Your task to perform on an android device: change notification settings in the gmail app Image 0: 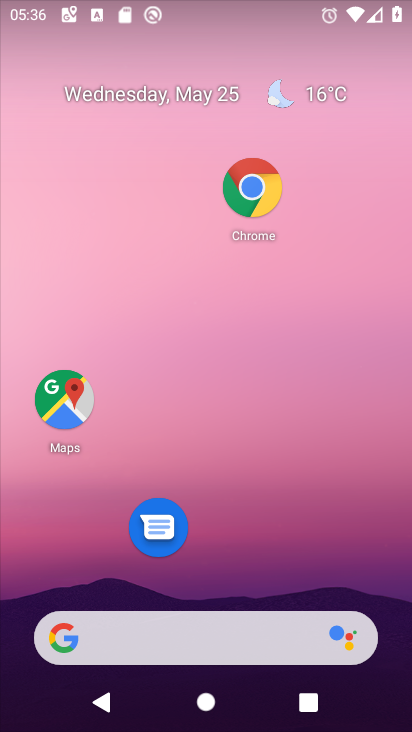
Step 0: drag from (302, 520) to (315, 5)
Your task to perform on an android device: change notification settings in the gmail app Image 1: 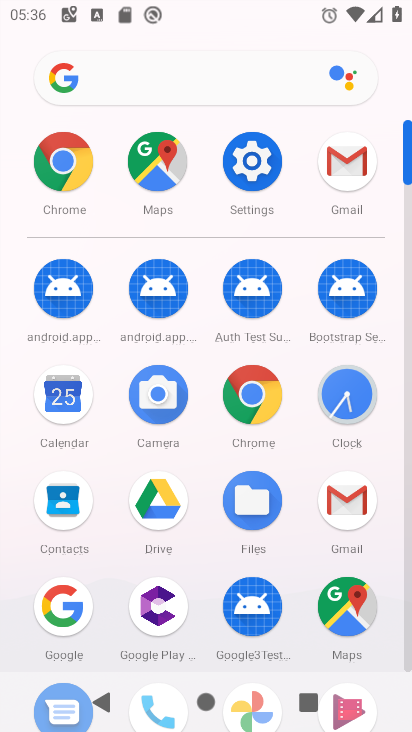
Step 1: click (347, 516)
Your task to perform on an android device: change notification settings in the gmail app Image 2: 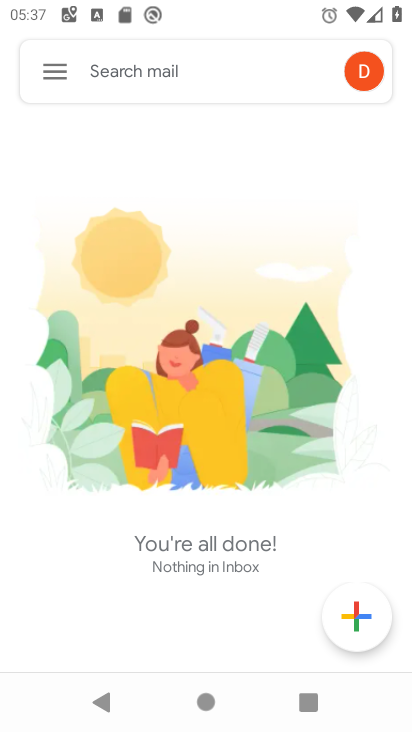
Step 2: click (55, 80)
Your task to perform on an android device: change notification settings in the gmail app Image 3: 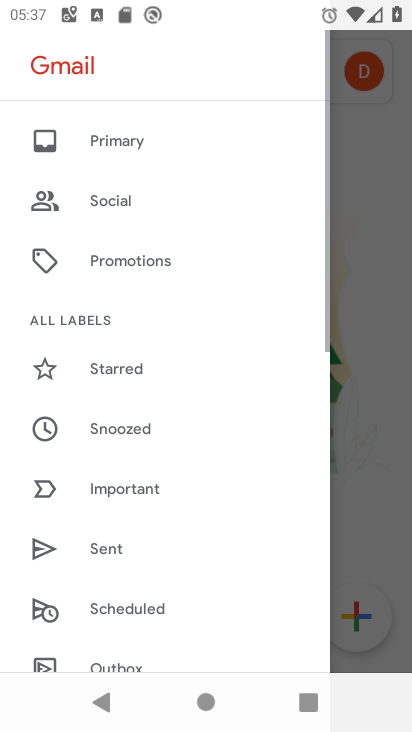
Step 3: drag from (143, 594) to (174, 142)
Your task to perform on an android device: change notification settings in the gmail app Image 4: 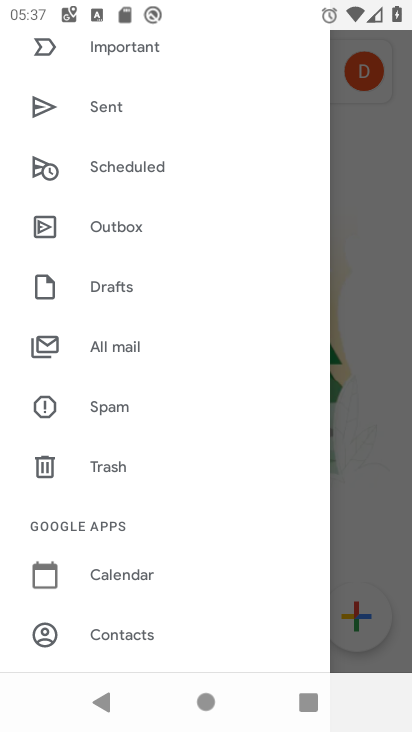
Step 4: drag from (142, 604) to (187, 276)
Your task to perform on an android device: change notification settings in the gmail app Image 5: 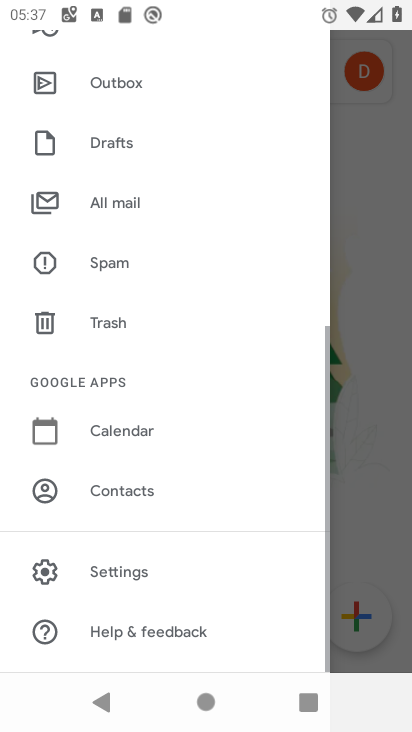
Step 5: click (145, 577)
Your task to perform on an android device: change notification settings in the gmail app Image 6: 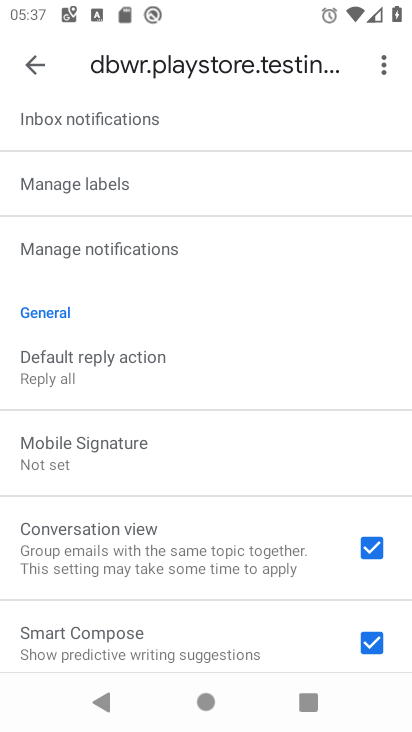
Step 6: click (107, 233)
Your task to perform on an android device: change notification settings in the gmail app Image 7: 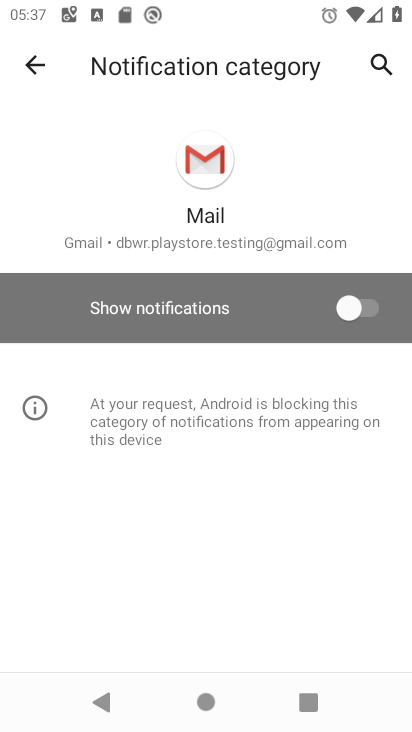
Step 7: click (359, 306)
Your task to perform on an android device: change notification settings in the gmail app Image 8: 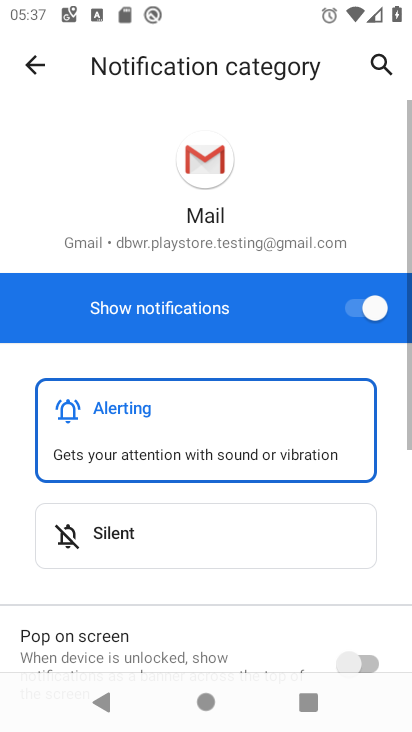
Step 8: task complete